Your task to perform on an android device: Open network settings Image 0: 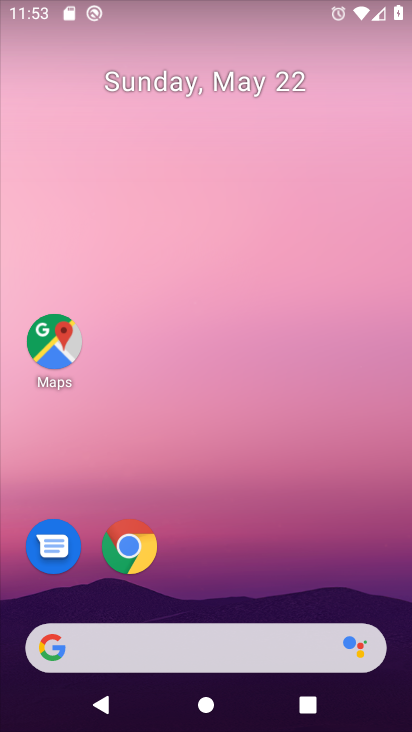
Step 0: drag from (242, 414) to (283, 138)
Your task to perform on an android device: Open network settings Image 1: 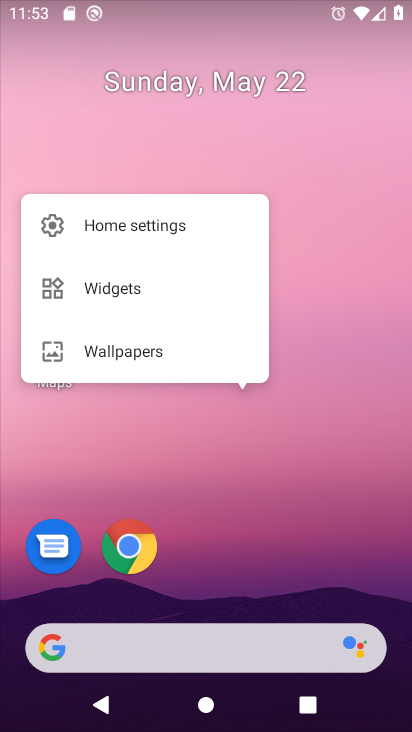
Step 1: click (318, 159)
Your task to perform on an android device: Open network settings Image 2: 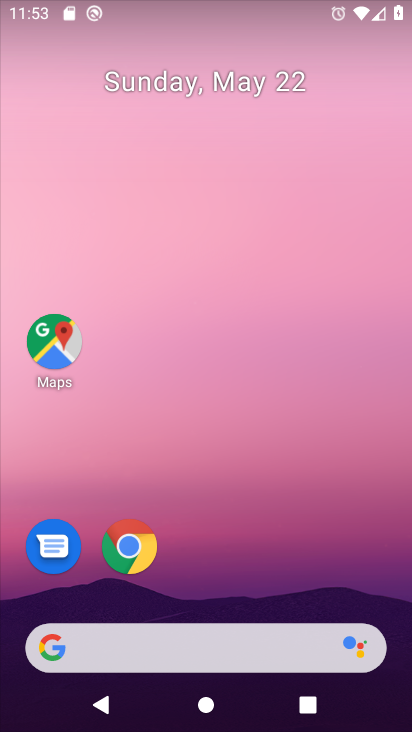
Step 2: click (364, 135)
Your task to perform on an android device: Open network settings Image 3: 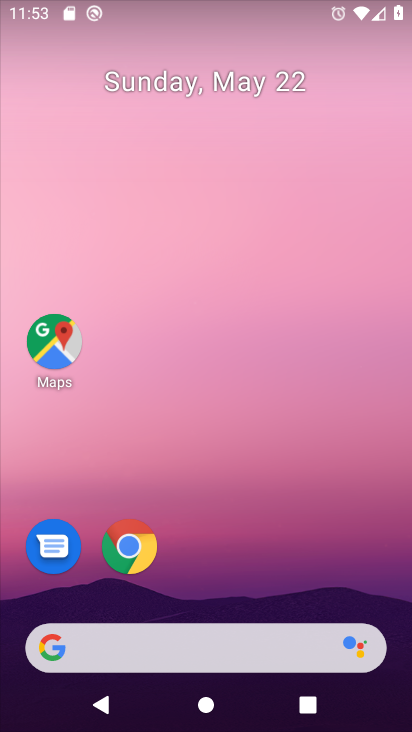
Step 3: drag from (345, 541) to (374, 220)
Your task to perform on an android device: Open network settings Image 4: 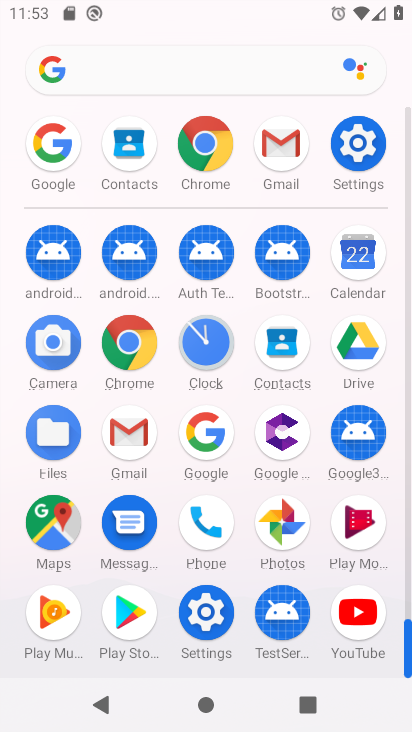
Step 4: drag from (309, 562) to (336, 299)
Your task to perform on an android device: Open network settings Image 5: 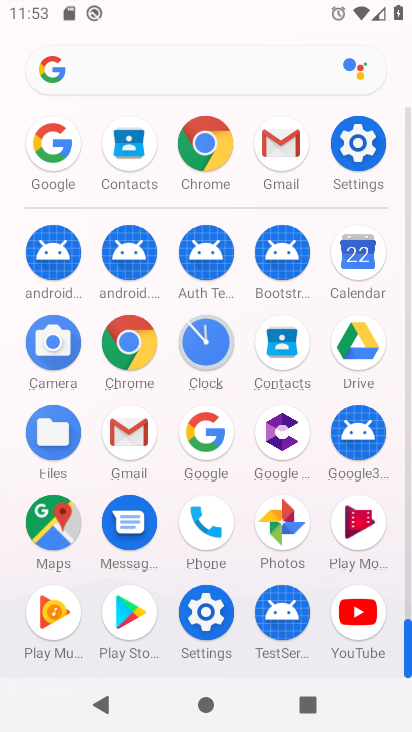
Step 5: click (366, 168)
Your task to perform on an android device: Open network settings Image 6: 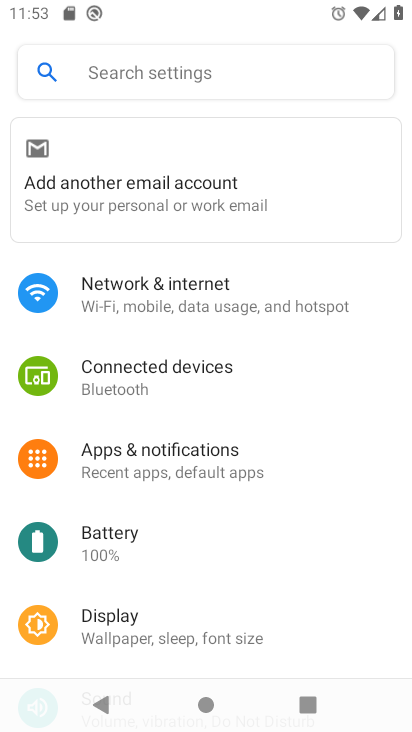
Step 6: click (257, 293)
Your task to perform on an android device: Open network settings Image 7: 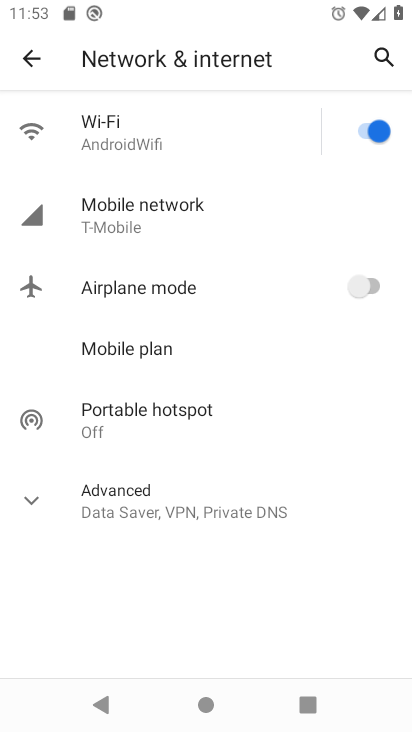
Step 7: click (204, 137)
Your task to perform on an android device: Open network settings Image 8: 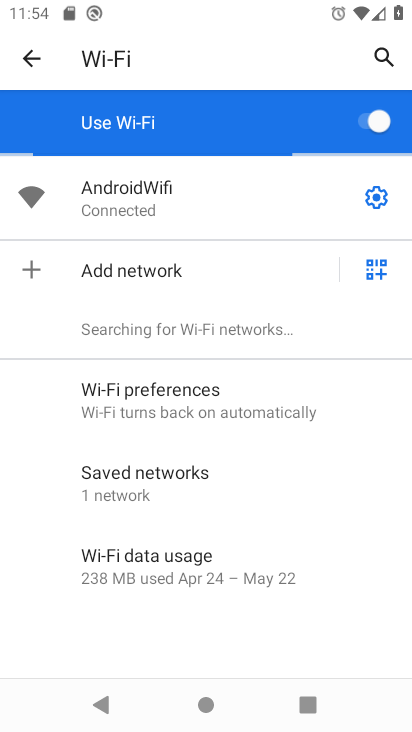
Step 8: task complete